Your task to perform on an android device: Go to ESPN.com Image 0: 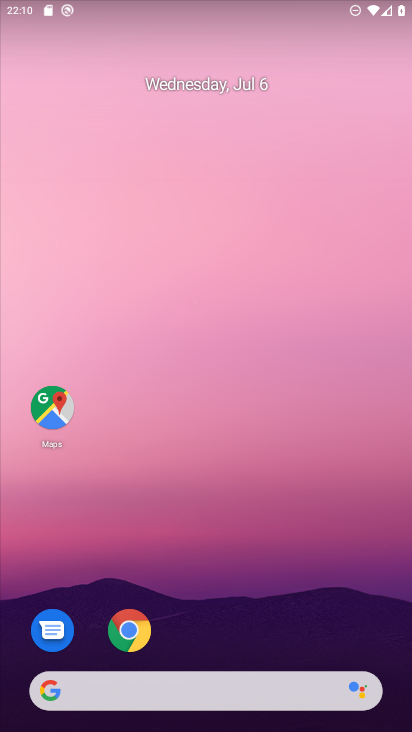
Step 0: press home button
Your task to perform on an android device: Go to ESPN.com Image 1: 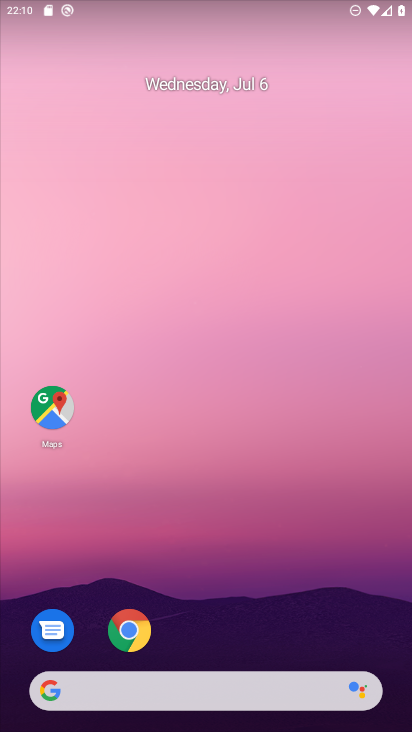
Step 1: drag from (244, 571) to (192, 78)
Your task to perform on an android device: Go to ESPN.com Image 2: 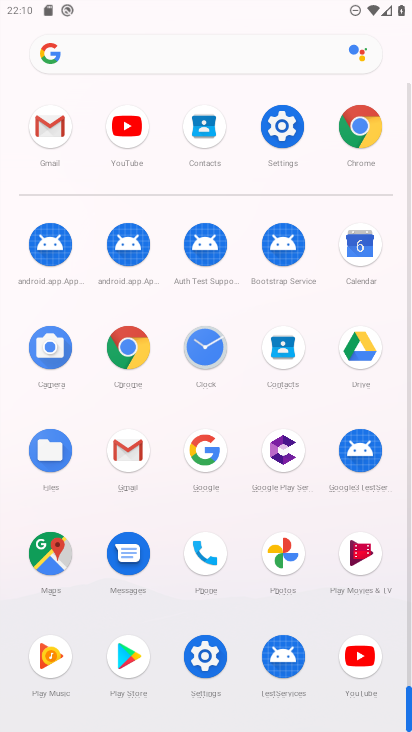
Step 2: click (137, 325)
Your task to perform on an android device: Go to ESPN.com Image 3: 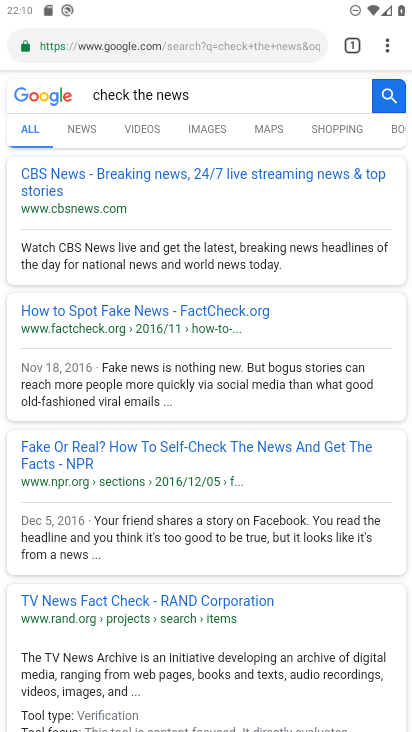
Step 3: click (213, 39)
Your task to perform on an android device: Go to ESPN.com Image 4: 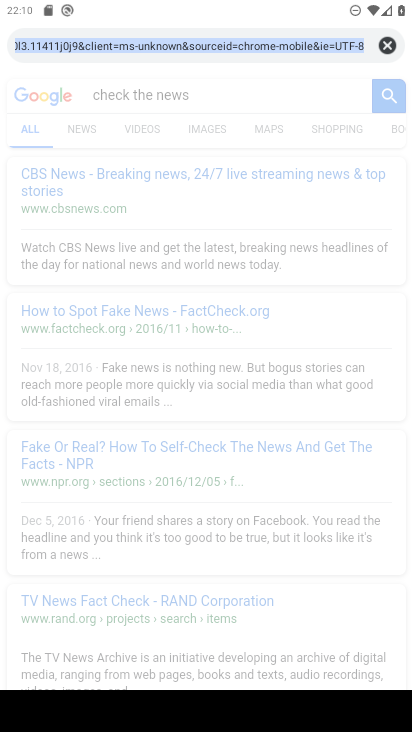
Step 4: type "ESPN.com"
Your task to perform on an android device: Go to ESPN.com Image 5: 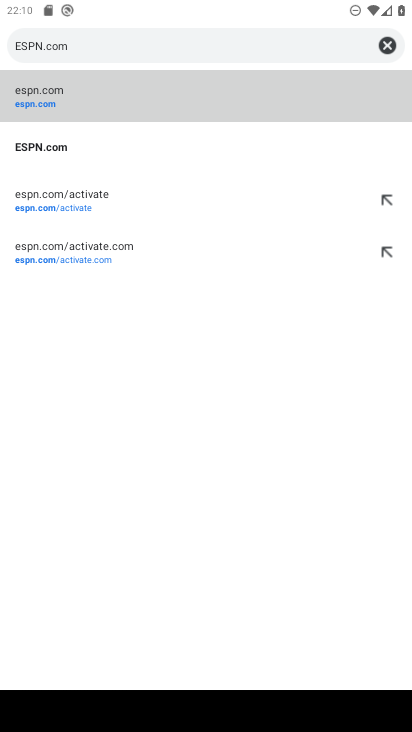
Step 5: click (79, 96)
Your task to perform on an android device: Go to ESPN.com Image 6: 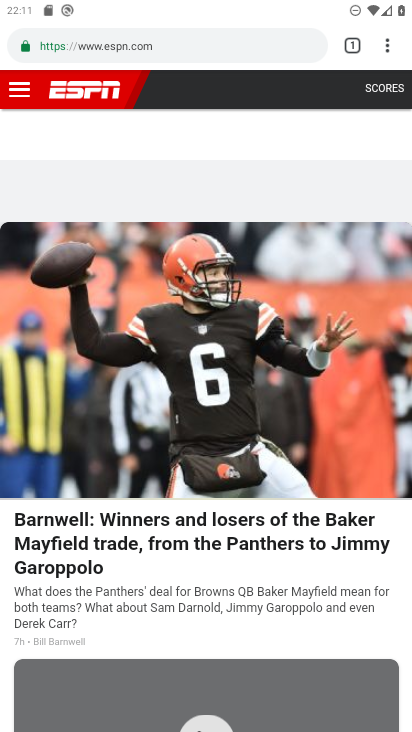
Step 6: task complete